Your task to perform on an android device: What is the news today? Image 0: 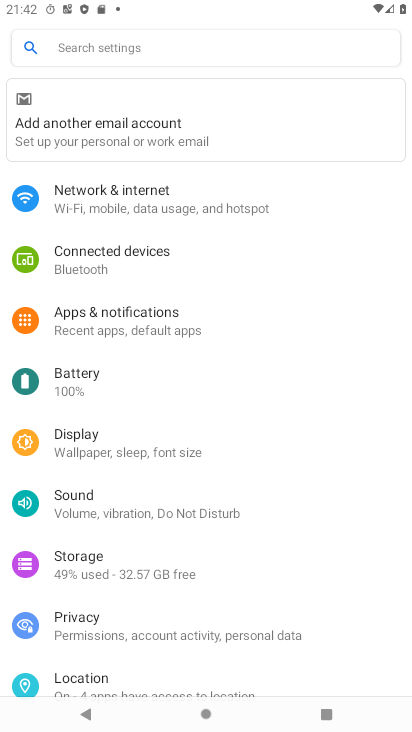
Step 0: drag from (349, 673) to (328, 140)
Your task to perform on an android device: What is the news today? Image 1: 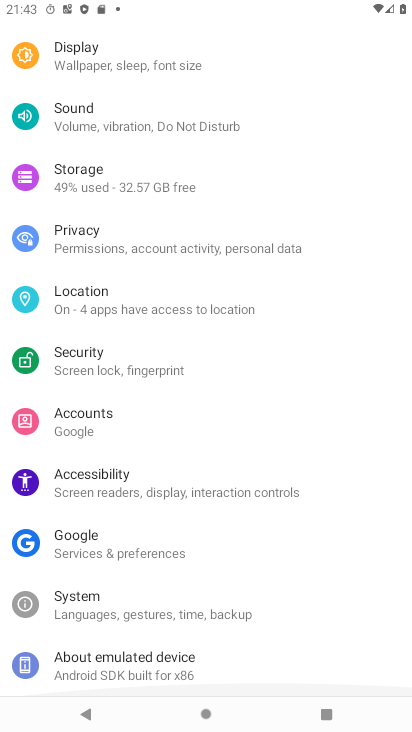
Step 1: drag from (331, 84) to (320, 664)
Your task to perform on an android device: What is the news today? Image 2: 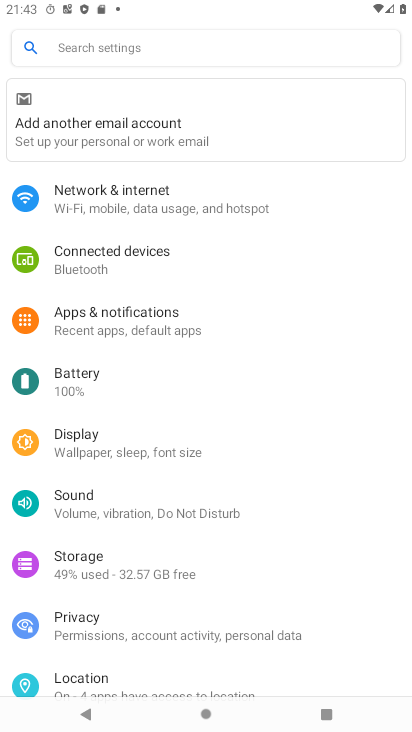
Step 2: drag from (242, 573) to (252, 30)
Your task to perform on an android device: What is the news today? Image 3: 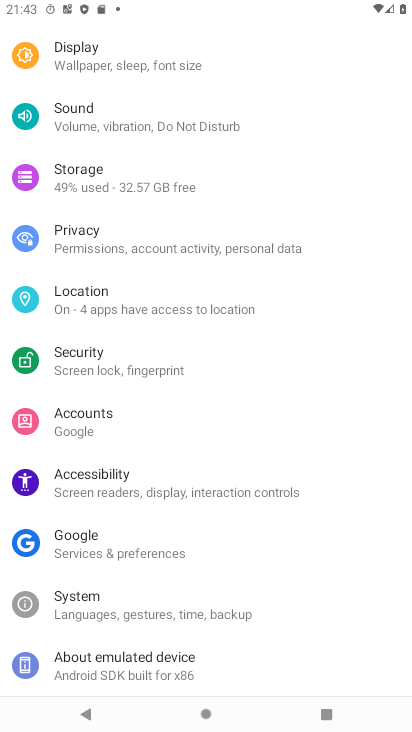
Step 3: press home button
Your task to perform on an android device: What is the news today? Image 4: 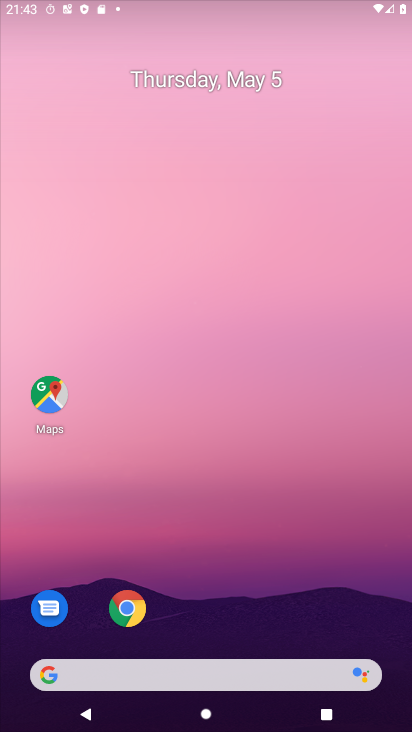
Step 4: drag from (289, 652) to (328, 27)
Your task to perform on an android device: What is the news today? Image 5: 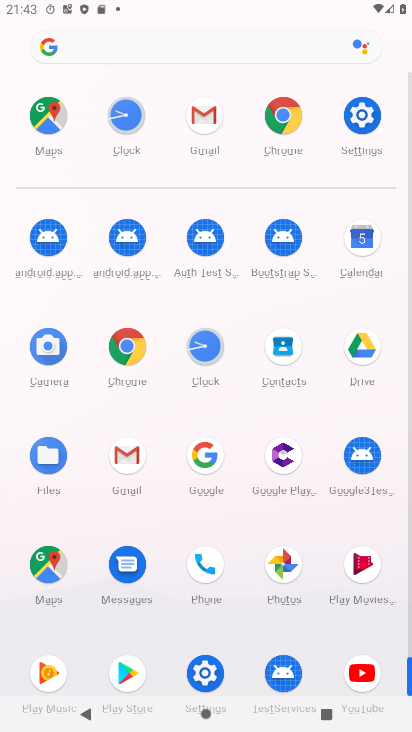
Step 5: click (128, 343)
Your task to perform on an android device: What is the news today? Image 6: 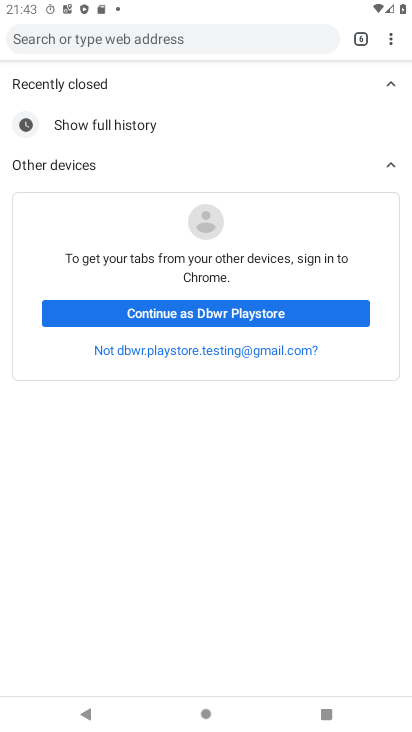
Step 6: click (184, 40)
Your task to perform on an android device: What is the news today? Image 7: 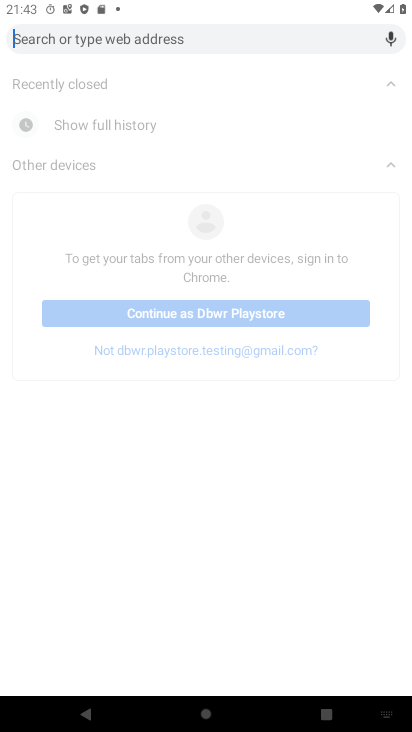
Step 7: type "news today"
Your task to perform on an android device: What is the news today? Image 8: 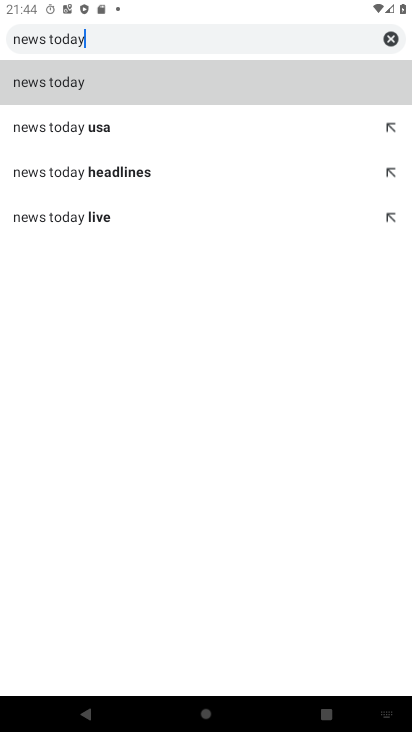
Step 8: click (54, 79)
Your task to perform on an android device: What is the news today? Image 9: 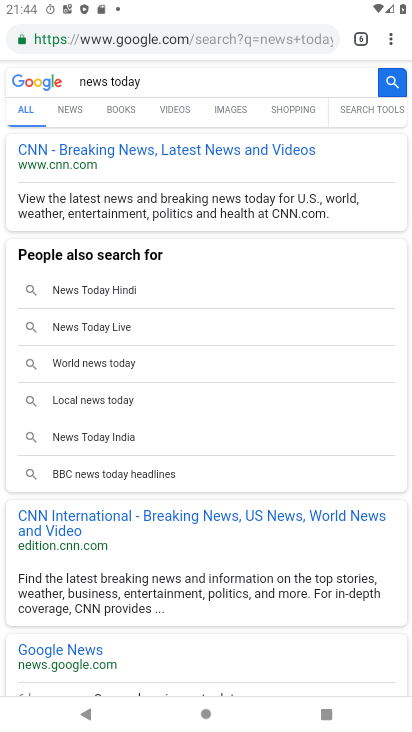
Step 9: task complete